Your task to perform on an android device: change timer sound Image 0: 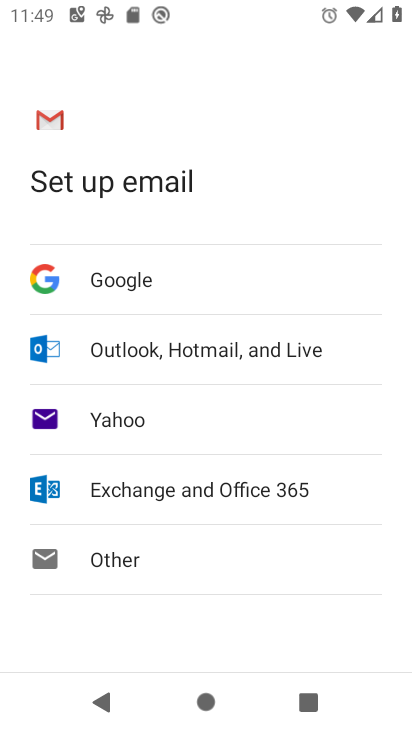
Step 0: press home button
Your task to perform on an android device: change timer sound Image 1: 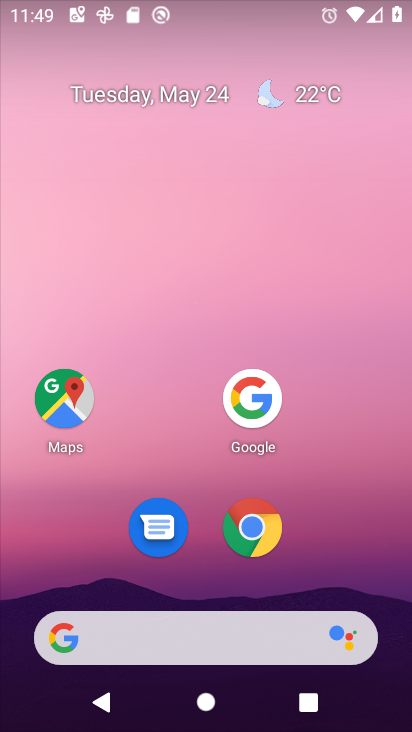
Step 1: drag from (217, 625) to (350, 2)
Your task to perform on an android device: change timer sound Image 2: 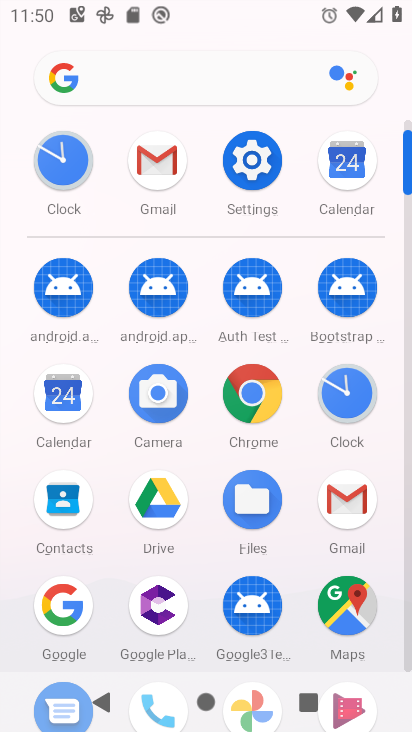
Step 2: click (337, 399)
Your task to perform on an android device: change timer sound Image 3: 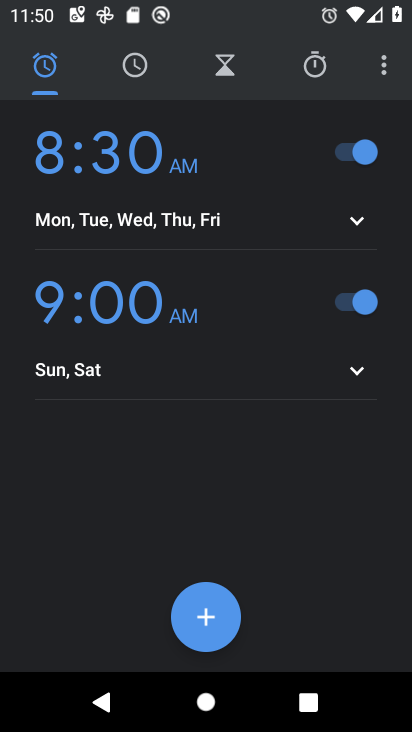
Step 3: click (388, 66)
Your task to perform on an android device: change timer sound Image 4: 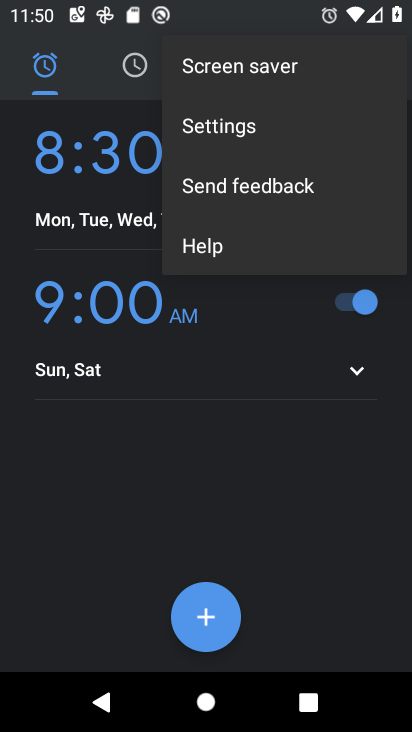
Step 4: click (266, 126)
Your task to perform on an android device: change timer sound Image 5: 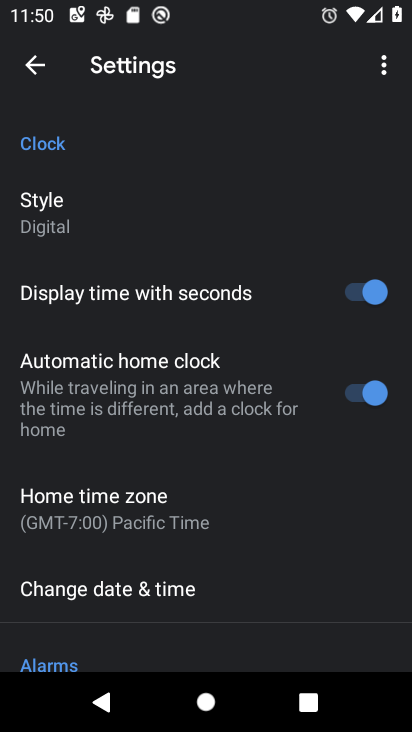
Step 5: drag from (286, 536) to (407, 96)
Your task to perform on an android device: change timer sound Image 6: 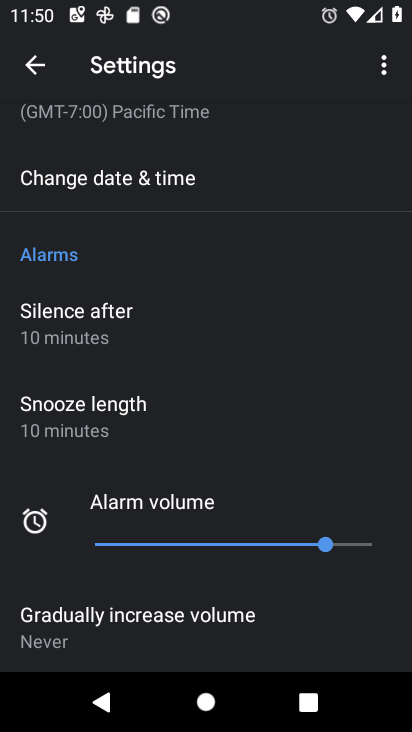
Step 6: drag from (320, 208) to (399, 62)
Your task to perform on an android device: change timer sound Image 7: 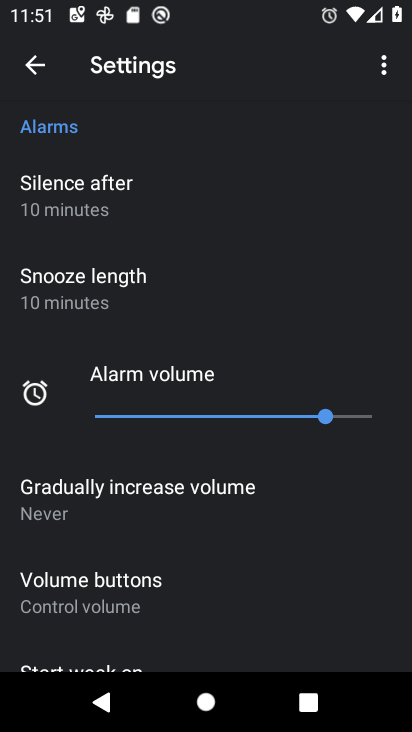
Step 7: drag from (179, 560) to (372, 166)
Your task to perform on an android device: change timer sound Image 8: 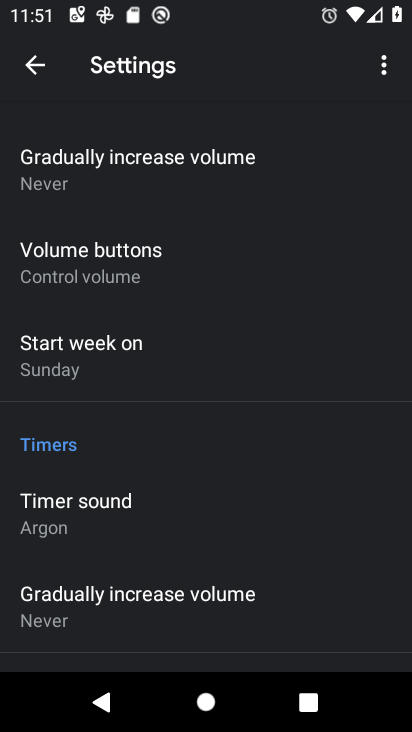
Step 8: click (108, 508)
Your task to perform on an android device: change timer sound Image 9: 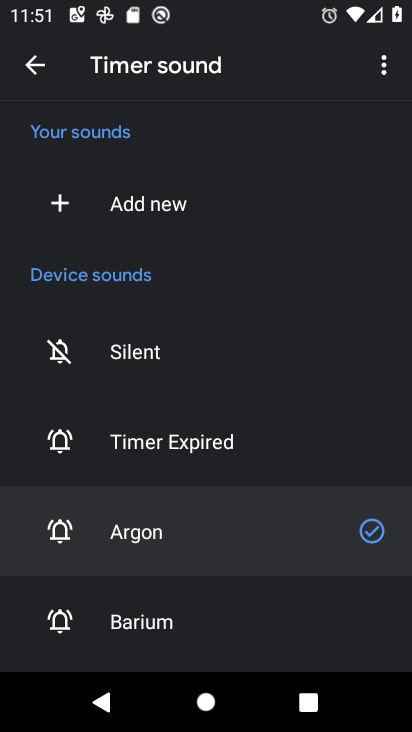
Step 9: click (153, 349)
Your task to perform on an android device: change timer sound Image 10: 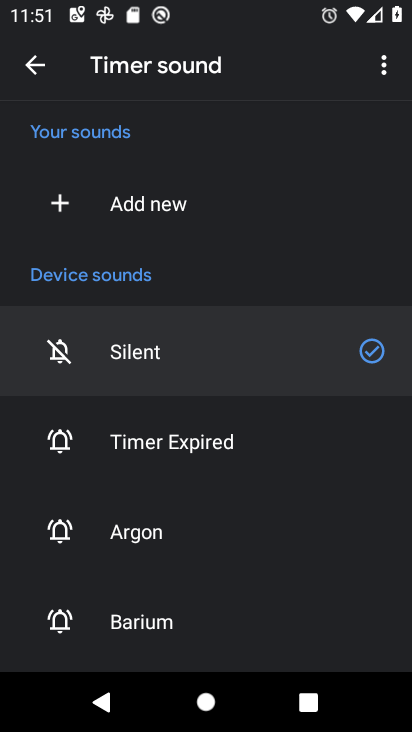
Step 10: task complete